Your task to perform on an android device: turn on wifi Image 0: 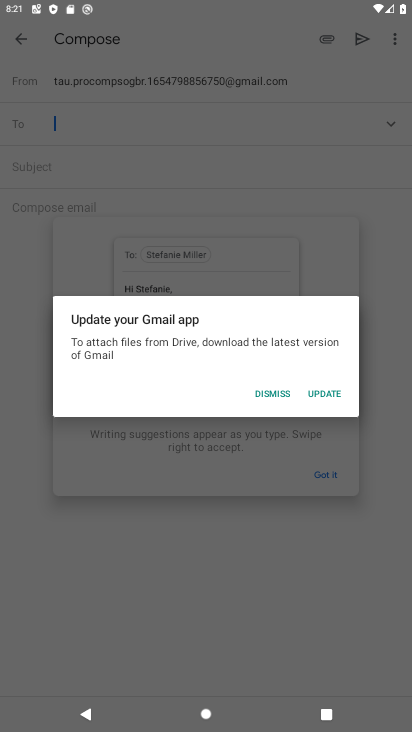
Step 0: press home button
Your task to perform on an android device: turn on wifi Image 1: 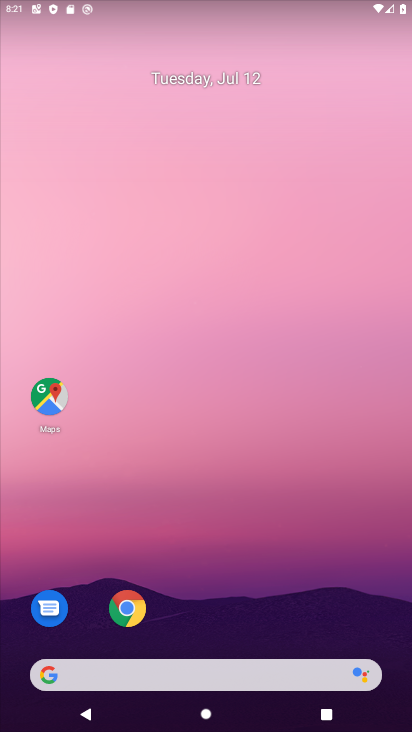
Step 1: drag from (320, 573) to (291, 188)
Your task to perform on an android device: turn on wifi Image 2: 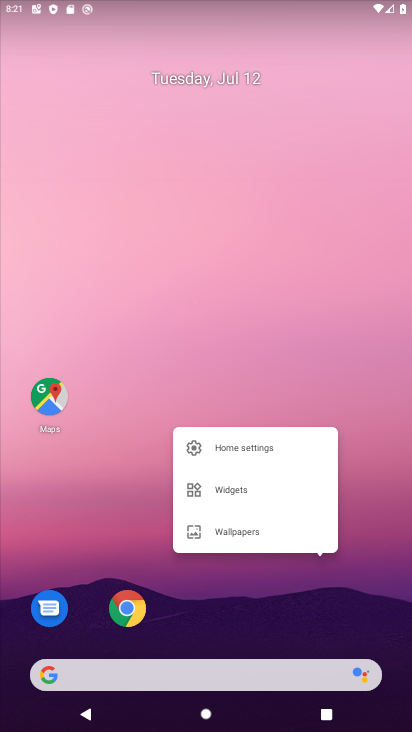
Step 2: click (290, 206)
Your task to perform on an android device: turn on wifi Image 3: 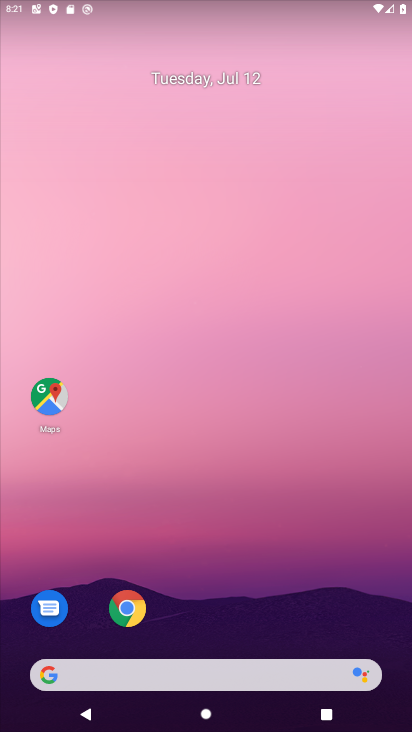
Step 3: drag from (265, 579) to (269, 10)
Your task to perform on an android device: turn on wifi Image 4: 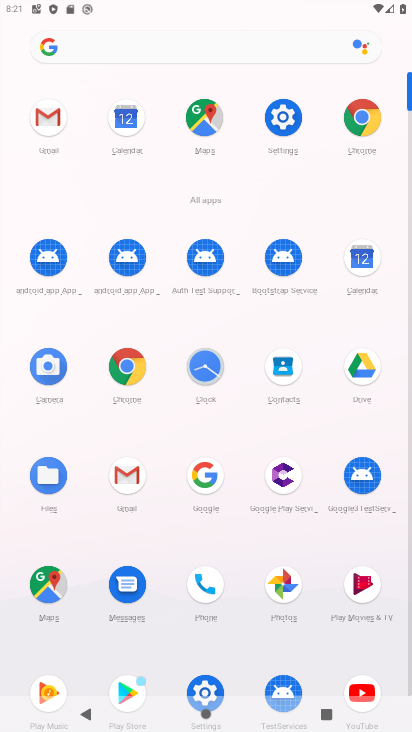
Step 4: click (284, 135)
Your task to perform on an android device: turn on wifi Image 5: 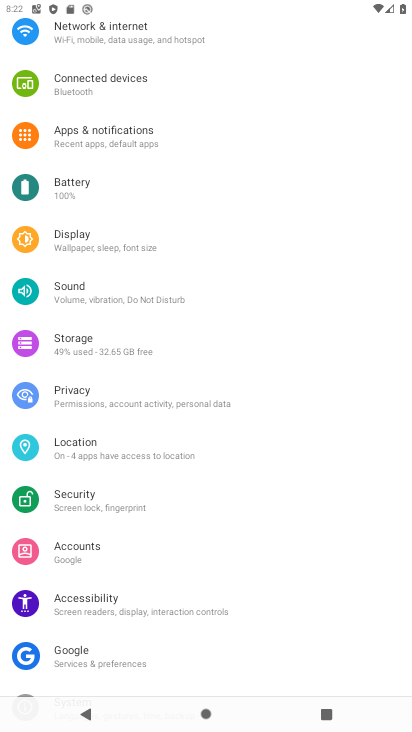
Step 5: click (216, 41)
Your task to perform on an android device: turn on wifi Image 6: 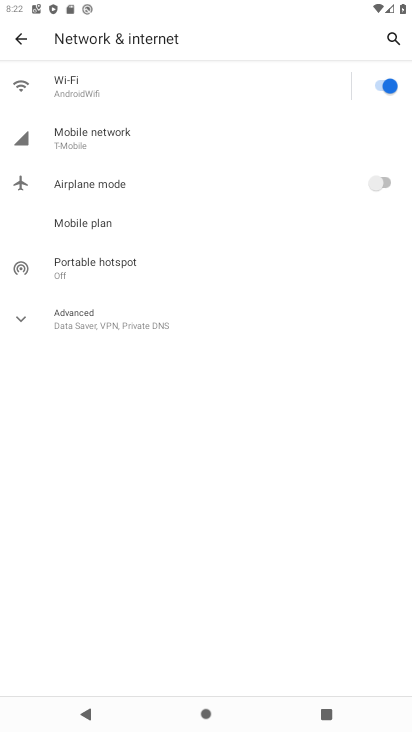
Step 6: task complete